Your task to perform on an android device: Play the last video I watched on Youtube Image 0: 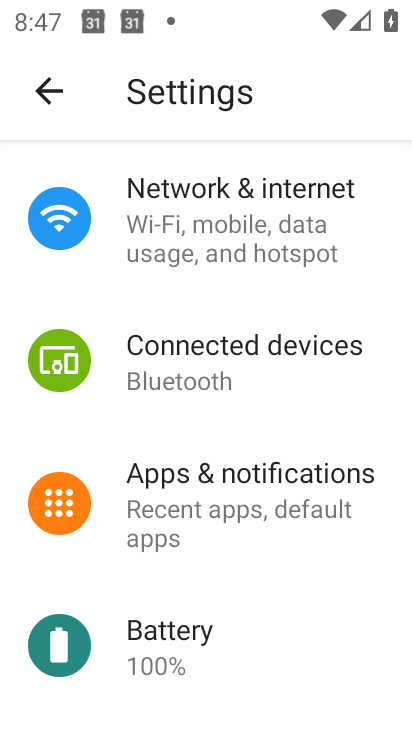
Step 0: press home button
Your task to perform on an android device: Play the last video I watched on Youtube Image 1: 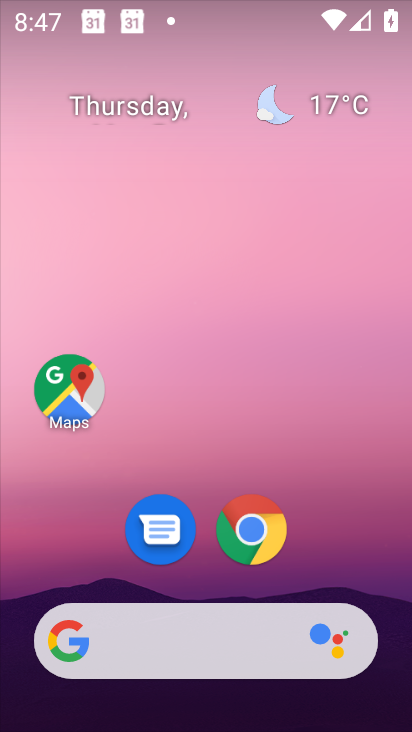
Step 1: drag from (353, 549) to (330, 0)
Your task to perform on an android device: Play the last video I watched on Youtube Image 2: 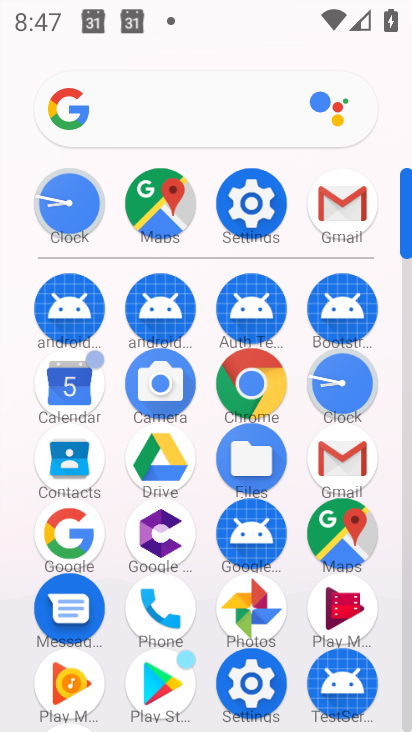
Step 2: drag from (208, 659) to (196, 242)
Your task to perform on an android device: Play the last video I watched on Youtube Image 3: 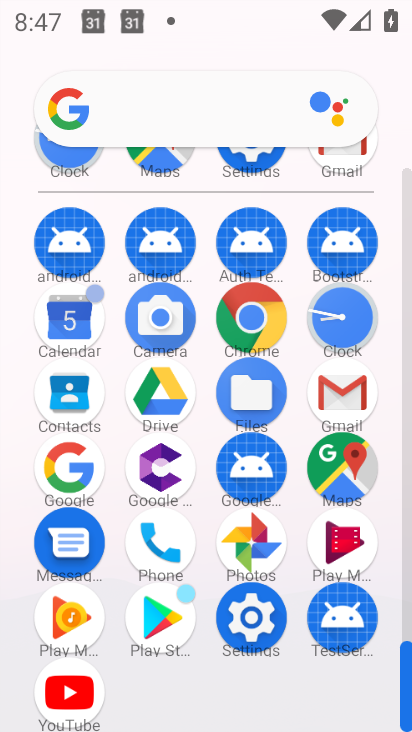
Step 3: click (73, 684)
Your task to perform on an android device: Play the last video I watched on Youtube Image 4: 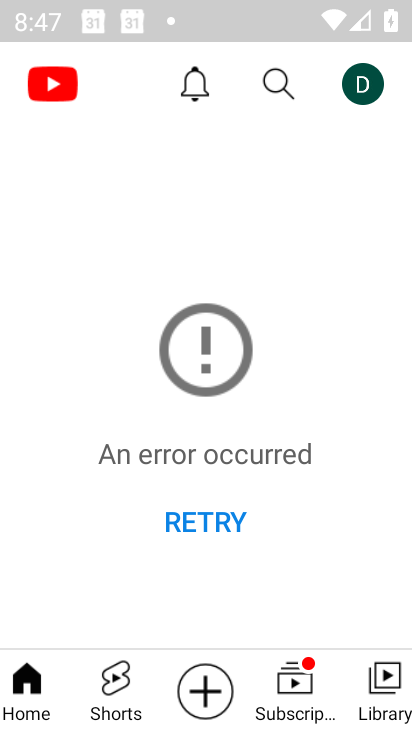
Step 4: click (378, 692)
Your task to perform on an android device: Play the last video I watched on Youtube Image 5: 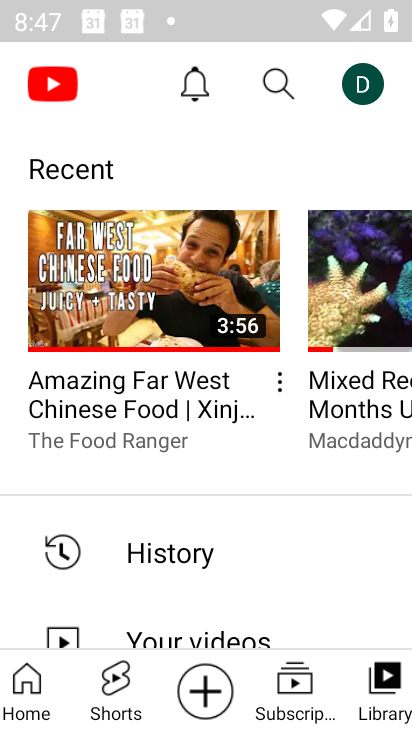
Step 5: click (149, 304)
Your task to perform on an android device: Play the last video I watched on Youtube Image 6: 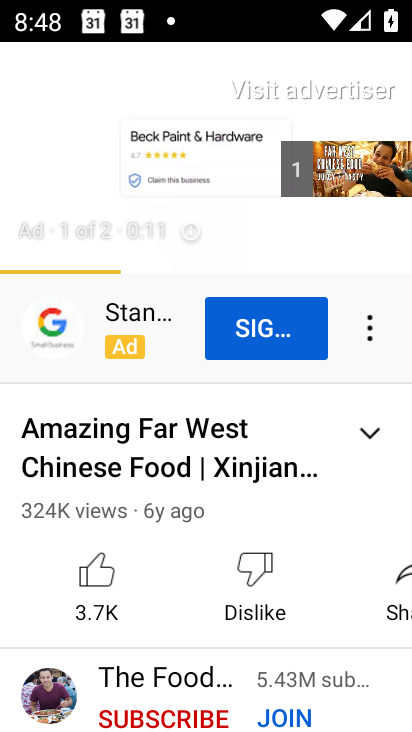
Step 6: task complete